Your task to perform on an android device: set default search engine in the chrome app Image 0: 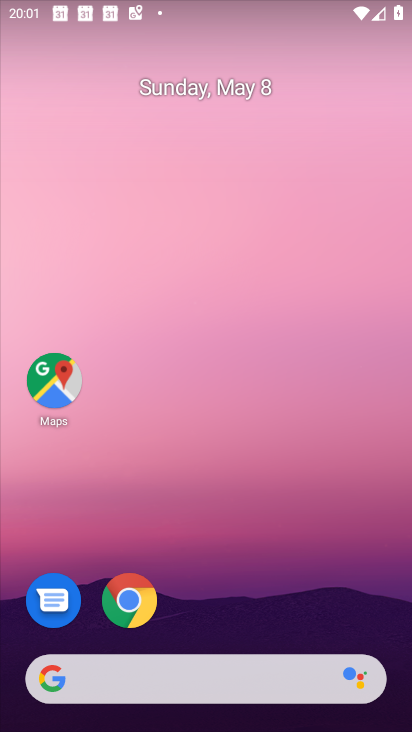
Step 0: drag from (283, 712) to (257, 234)
Your task to perform on an android device: set default search engine in the chrome app Image 1: 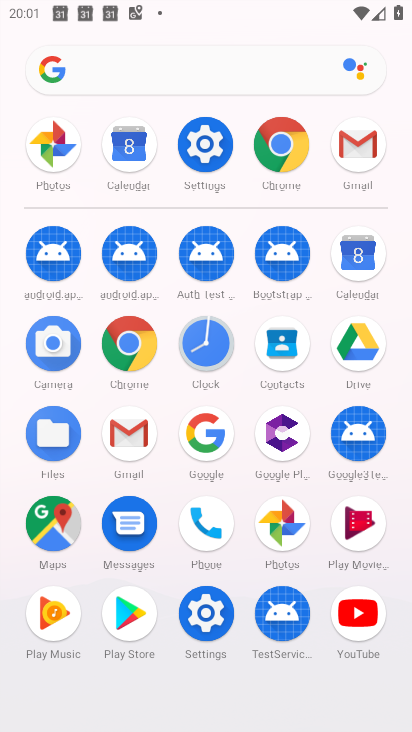
Step 1: click (272, 146)
Your task to perform on an android device: set default search engine in the chrome app Image 2: 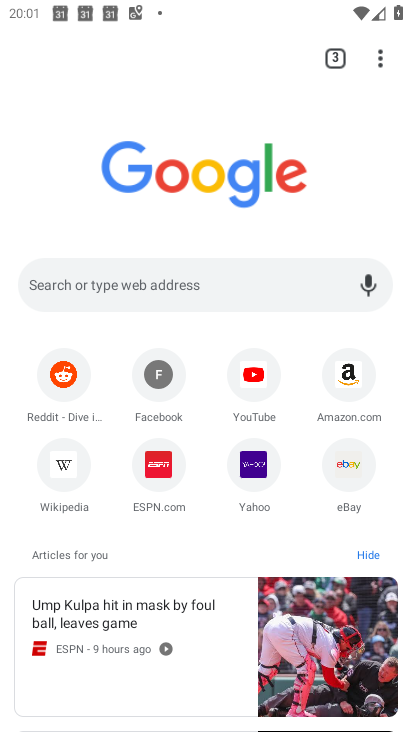
Step 2: click (383, 67)
Your task to perform on an android device: set default search engine in the chrome app Image 3: 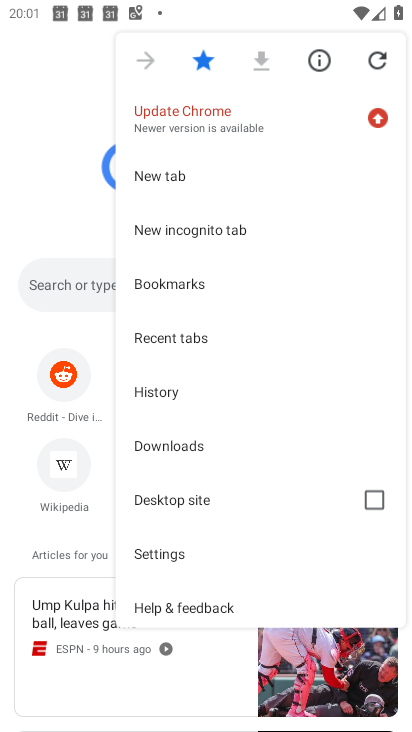
Step 3: click (184, 554)
Your task to perform on an android device: set default search engine in the chrome app Image 4: 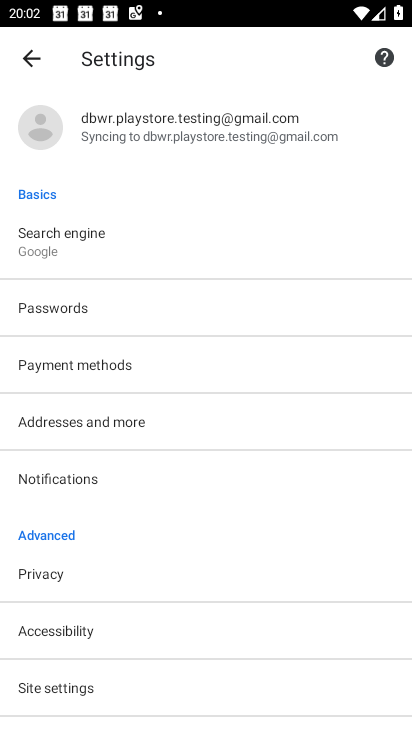
Step 4: click (68, 253)
Your task to perform on an android device: set default search engine in the chrome app Image 5: 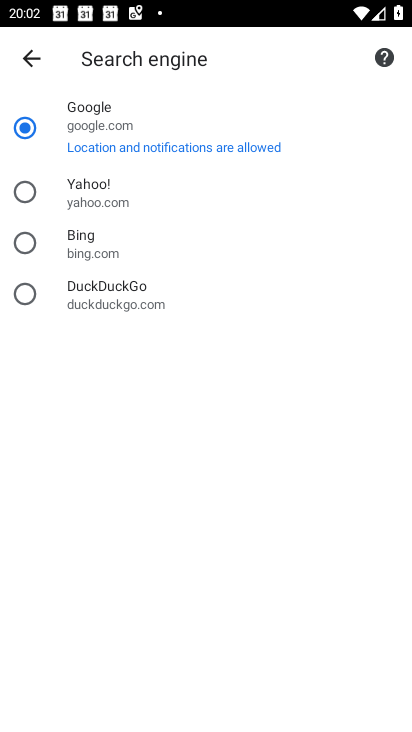
Step 5: task complete